Your task to perform on an android device: toggle javascript in the chrome app Image 0: 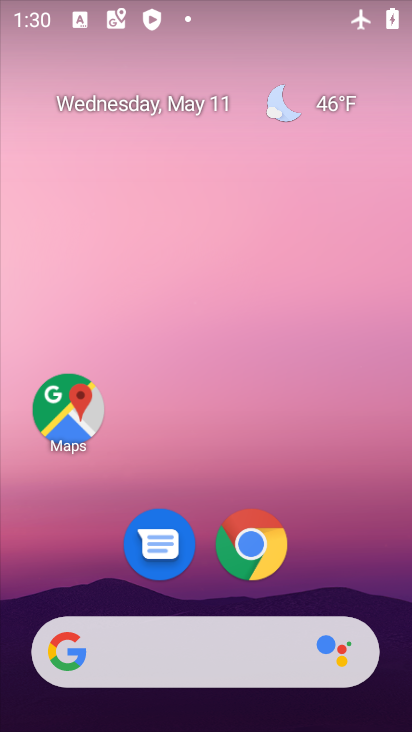
Step 0: click (252, 540)
Your task to perform on an android device: toggle javascript in the chrome app Image 1: 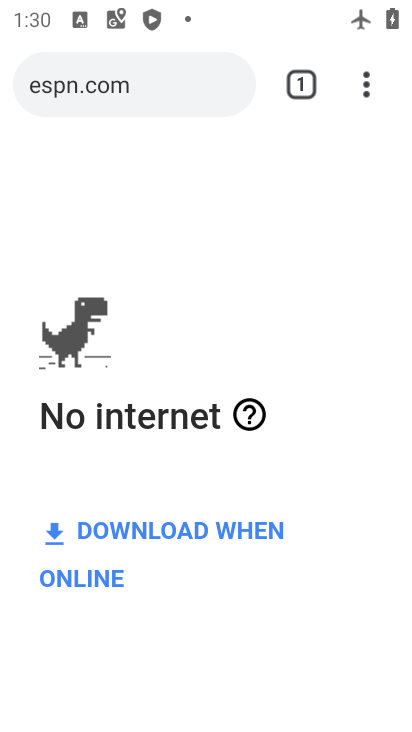
Step 1: click (364, 96)
Your task to perform on an android device: toggle javascript in the chrome app Image 2: 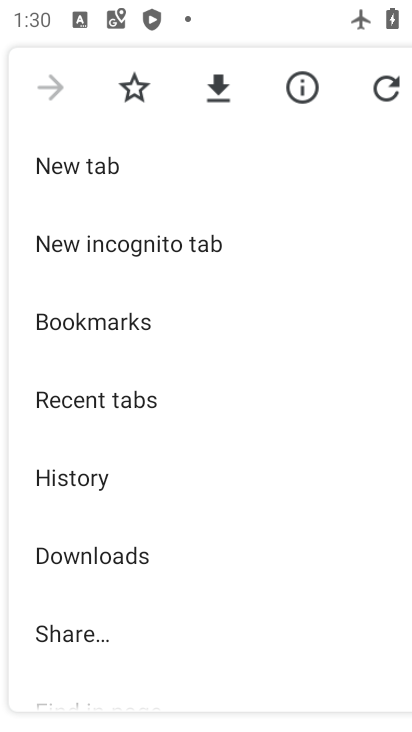
Step 2: drag from (203, 559) to (317, 84)
Your task to perform on an android device: toggle javascript in the chrome app Image 3: 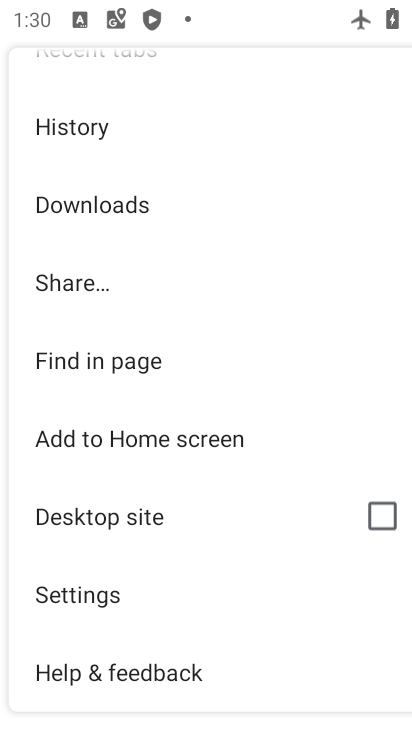
Step 3: click (96, 589)
Your task to perform on an android device: toggle javascript in the chrome app Image 4: 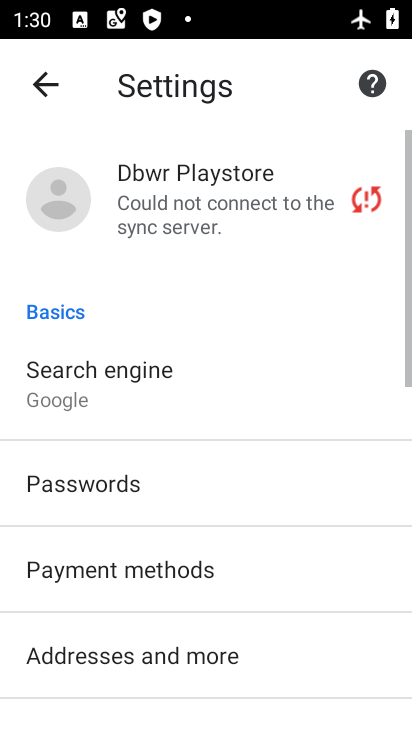
Step 4: drag from (277, 675) to (275, 224)
Your task to perform on an android device: toggle javascript in the chrome app Image 5: 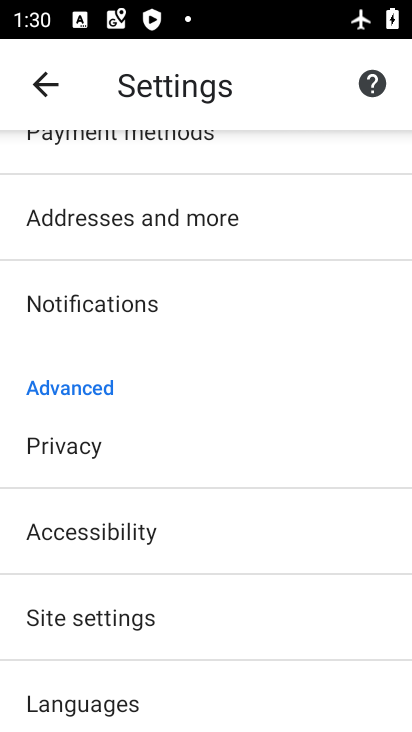
Step 5: drag from (197, 653) to (264, 297)
Your task to perform on an android device: toggle javascript in the chrome app Image 6: 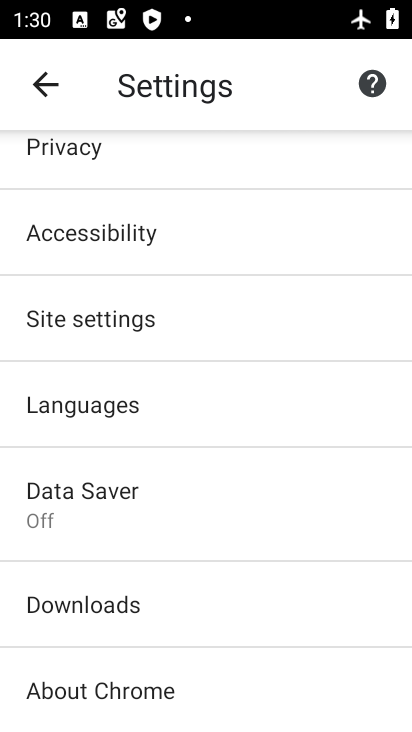
Step 6: click (76, 310)
Your task to perform on an android device: toggle javascript in the chrome app Image 7: 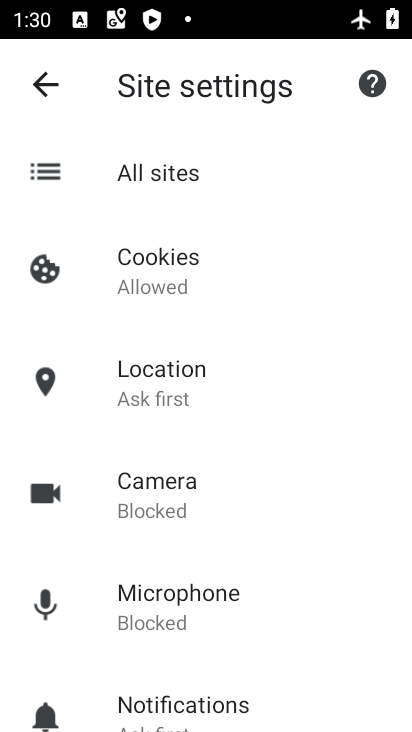
Step 7: drag from (312, 659) to (321, 227)
Your task to perform on an android device: toggle javascript in the chrome app Image 8: 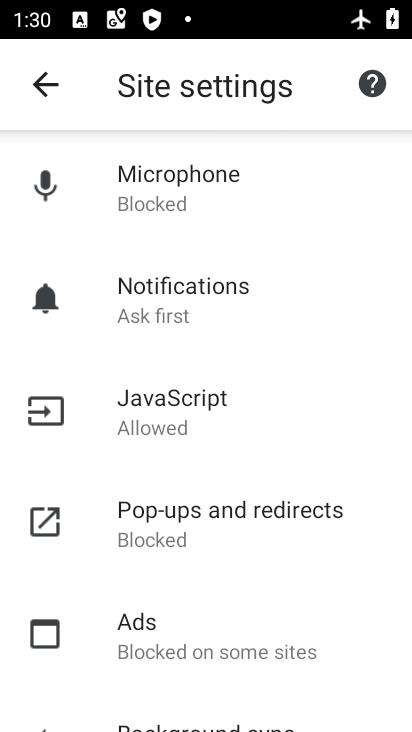
Step 8: click (168, 403)
Your task to perform on an android device: toggle javascript in the chrome app Image 9: 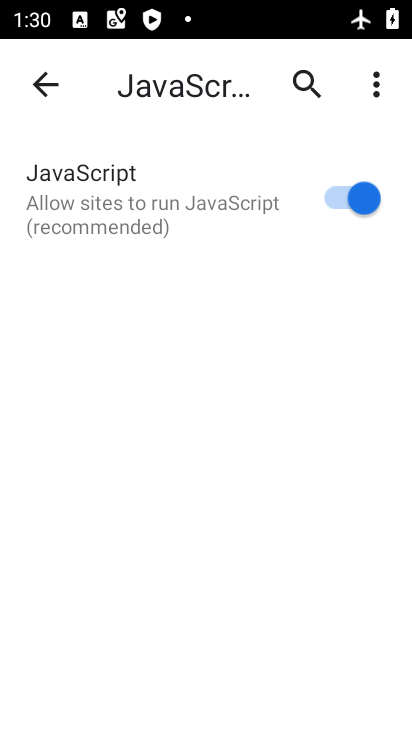
Step 9: click (327, 196)
Your task to perform on an android device: toggle javascript in the chrome app Image 10: 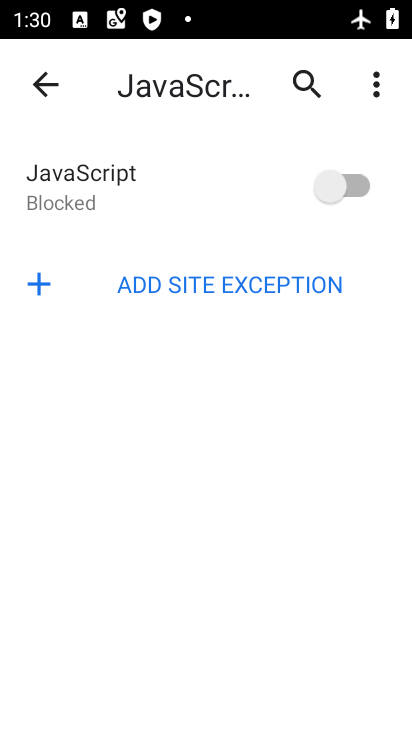
Step 10: task complete